Your task to perform on an android device: find snoozed emails in the gmail app Image 0: 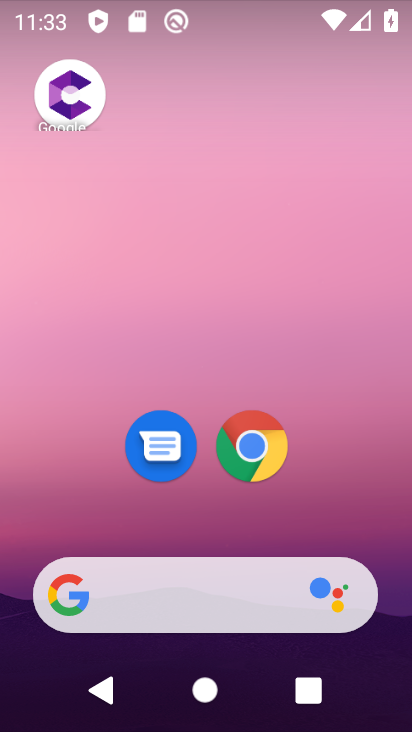
Step 0: drag from (305, 522) to (305, 230)
Your task to perform on an android device: find snoozed emails in the gmail app Image 1: 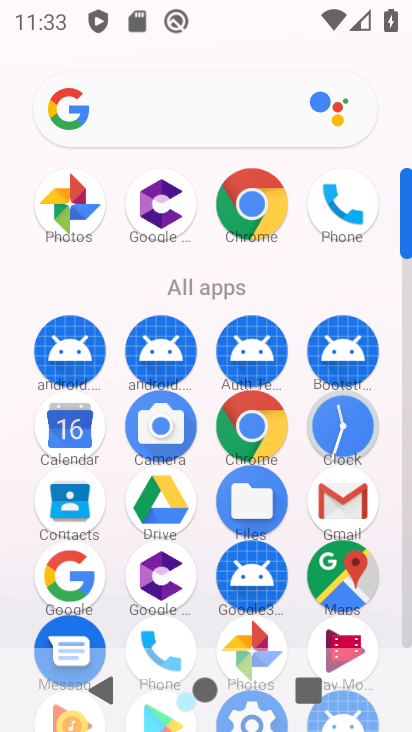
Step 1: click (333, 502)
Your task to perform on an android device: find snoozed emails in the gmail app Image 2: 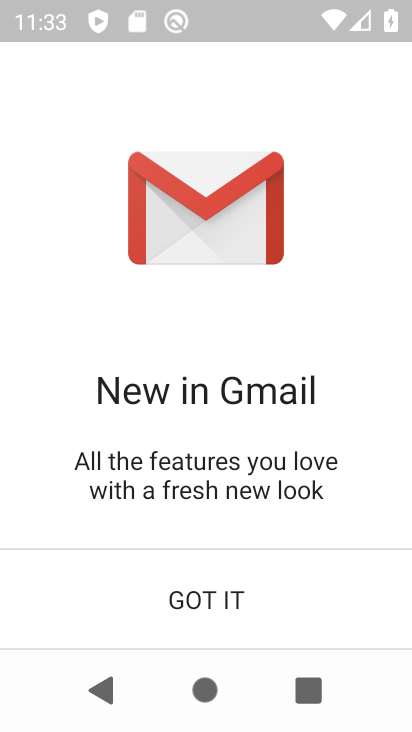
Step 2: click (233, 586)
Your task to perform on an android device: find snoozed emails in the gmail app Image 3: 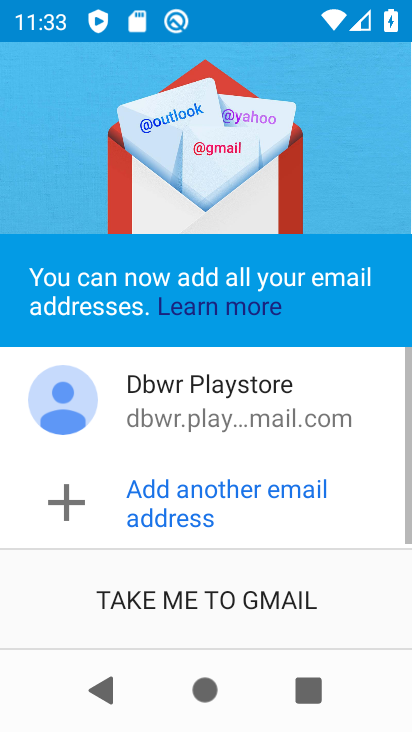
Step 3: click (233, 586)
Your task to perform on an android device: find snoozed emails in the gmail app Image 4: 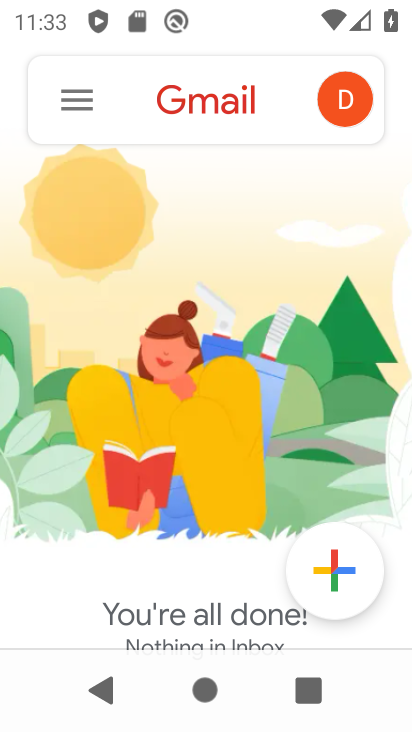
Step 4: click (81, 93)
Your task to perform on an android device: find snoozed emails in the gmail app Image 5: 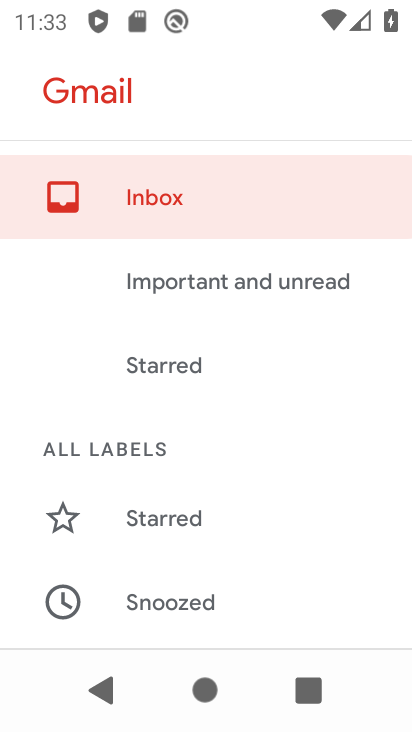
Step 5: click (186, 590)
Your task to perform on an android device: find snoozed emails in the gmail app Image 6: 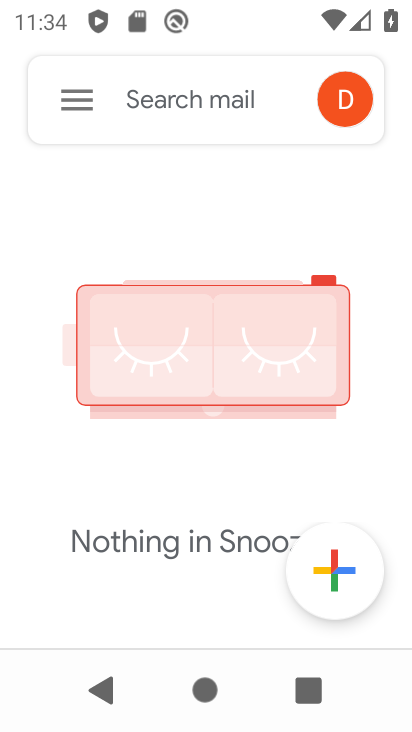
Step 6: task complete